Your task to perform on an android device: Open my contact list Image 0: 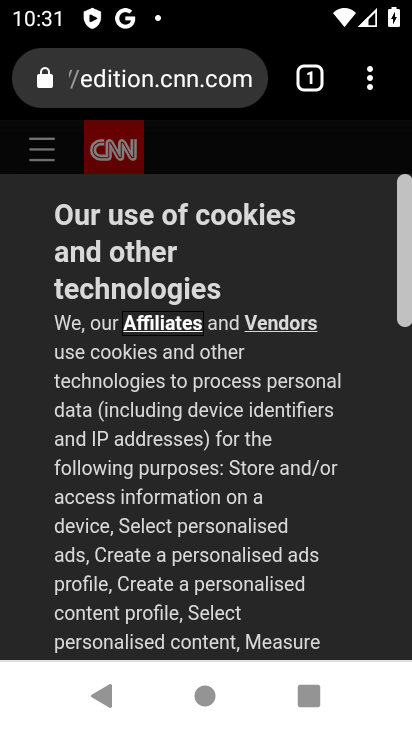
Step 0: press home button
Your task to perform on an android device: Open my contact list Image 1: 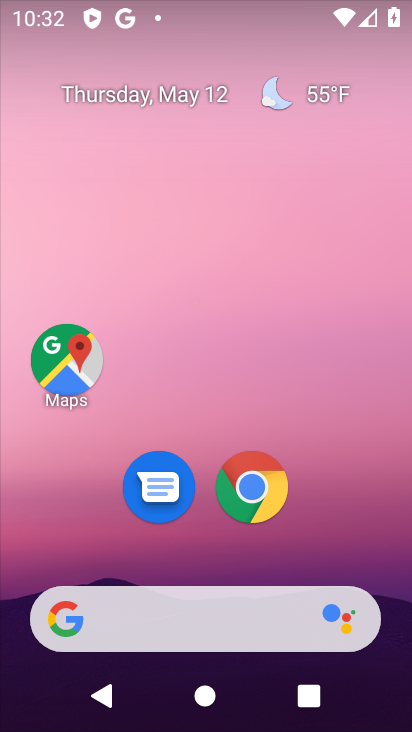
Step 1: drag from (340, 563) to (299, 7)
Your task to perform on an android device: Open my contact list Image 2: 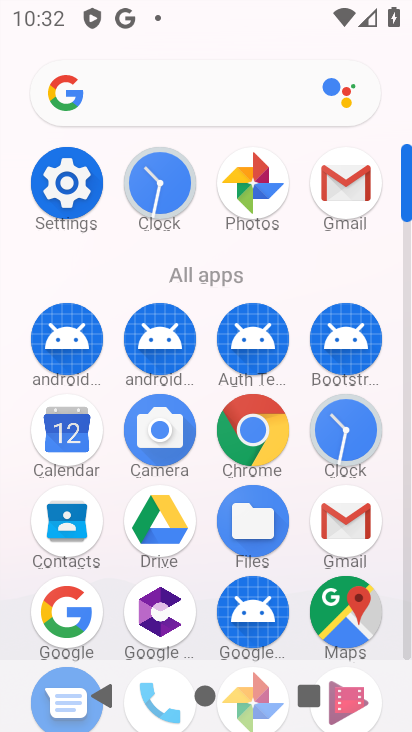
Step 2: click (56, 525)
Your task to perform on an android device: Open my contact list Image 3: 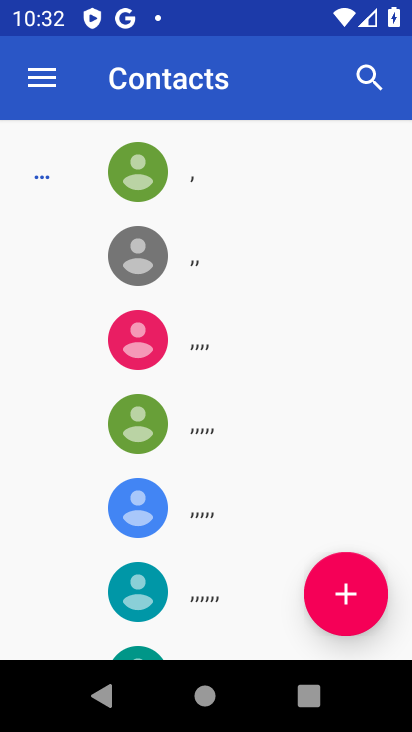
Step 3: task complete